Your task to perform on an android device: Open internet settings Image 0: 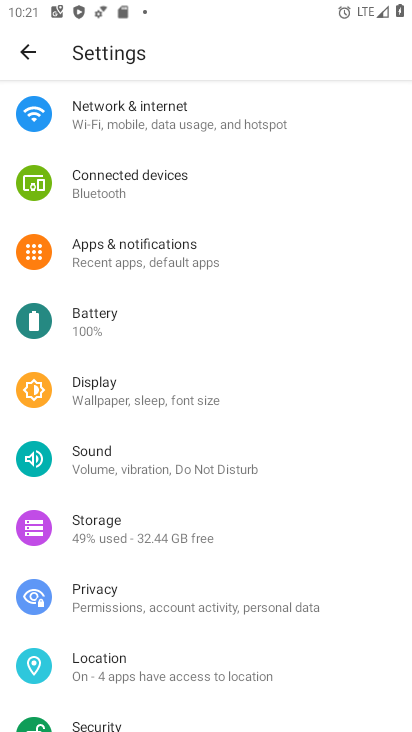
Step 0: click (231, 114)
Your task to perform on an android device: Open internet settings Image 1: 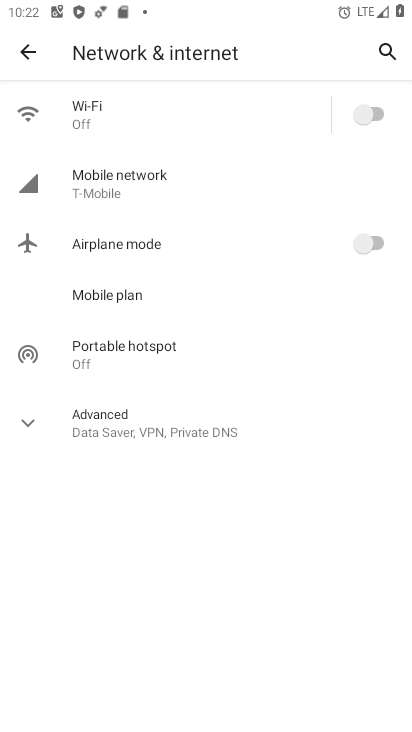
Step 1: task complete